Your task to perform on an android device: turn on the 12-hour format for clock Image 0: 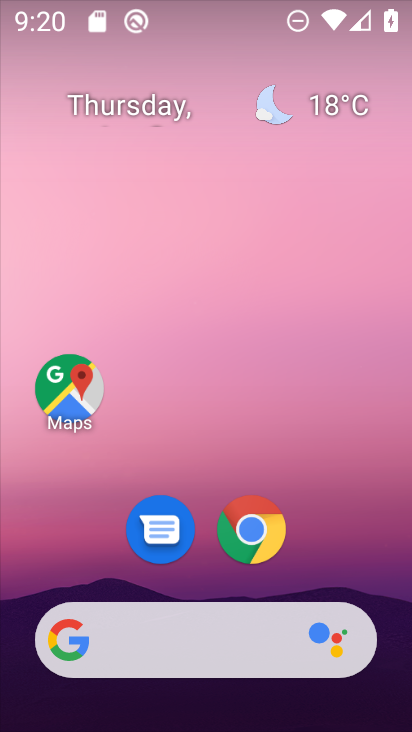
Step 0: drag from (389, 633) to (353, 82)
Your task to perform on an android device: turn on the 12-hour format for clock Image 1: 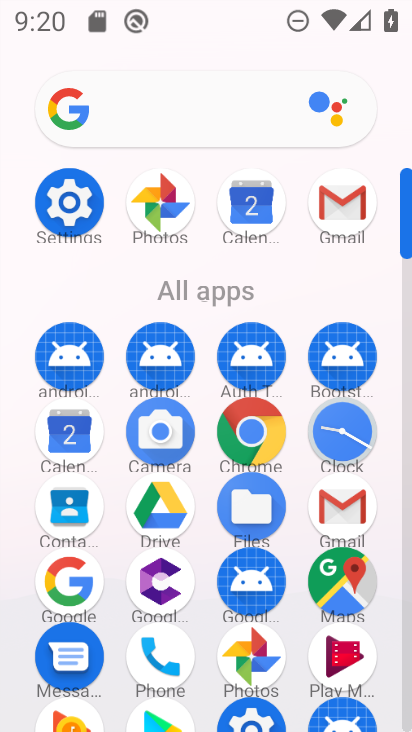
Step 1: click (335, 426)
Your task to perform on an android device: turn on the 12-hour format for clock Image 2: 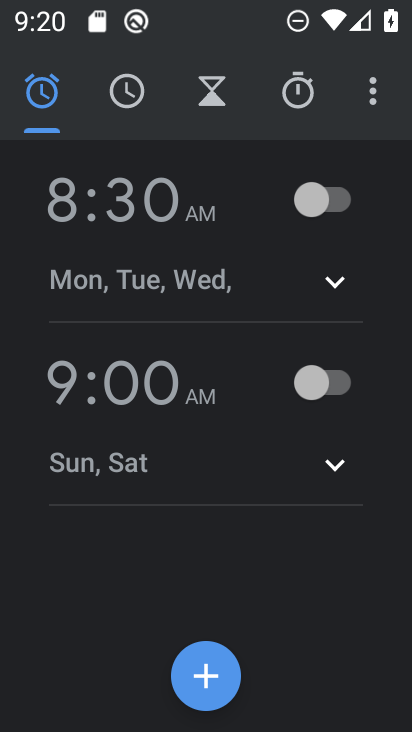
Step 2: click (374, 86)
Your task to perform on an android device: turn on the 12-hour format for clock Image 3: 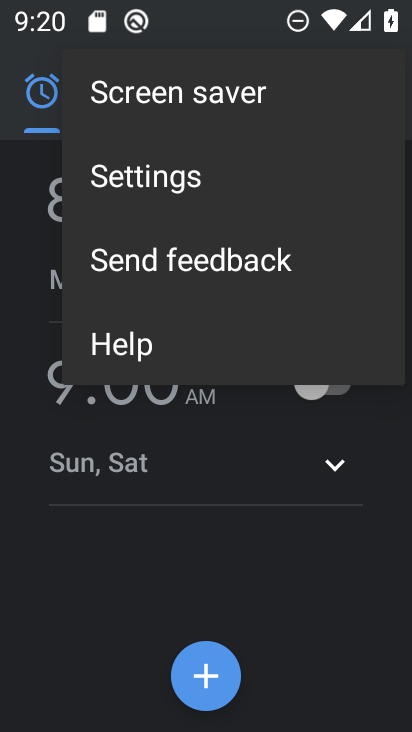
Step 3: click (133, 184)
Your task to perform on an android device: turn on the 12-hour format for clock Image 4: 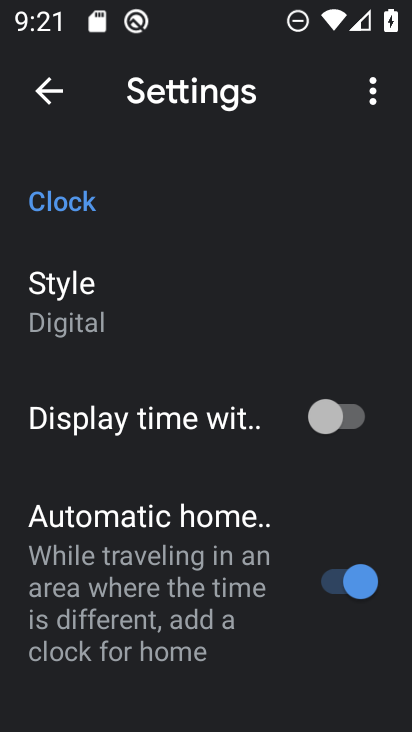
Step 4: drag from (179, 680) to (165, 315)
Your task to perform on an android device: turn on the 12-hour format for clock Image 5: 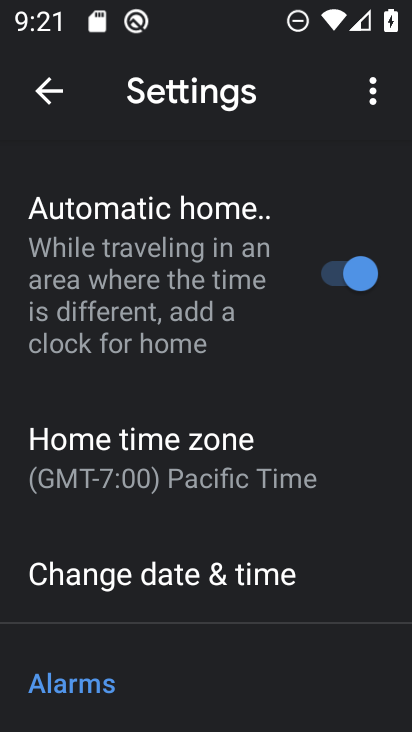
Step 5: click (128, 576)
Your task to perform on an android device: turn on the 12-hour format for clock Image 6: 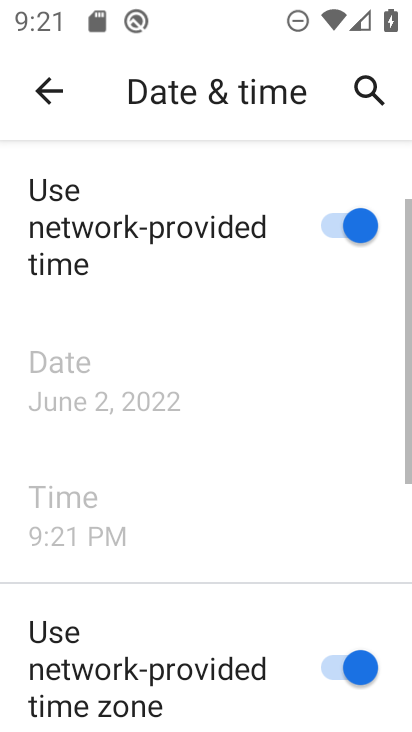
Step 6: task complete